Your task to perform on an android device: turn on notifications settings in the gmail app Image 0: 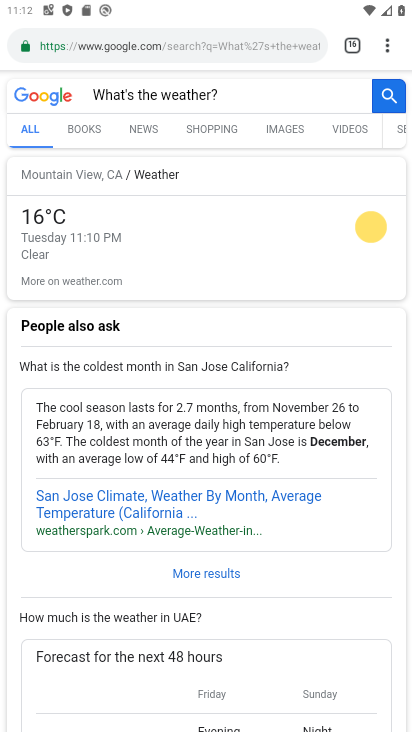
Step 0: press home button
Your task to perform on an android device: turn on notifications settings in the gmail app Image 1: 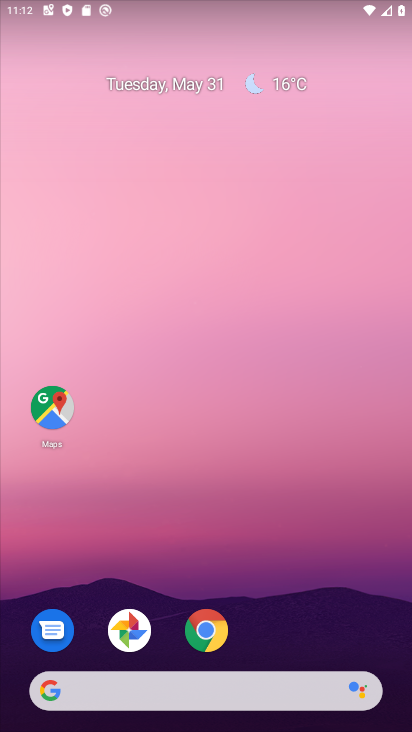
Step 1: drag from (272, 646) to (215, 238)
Your task to perform on an android device: turn on notifications settings in the gmail app Image 2: 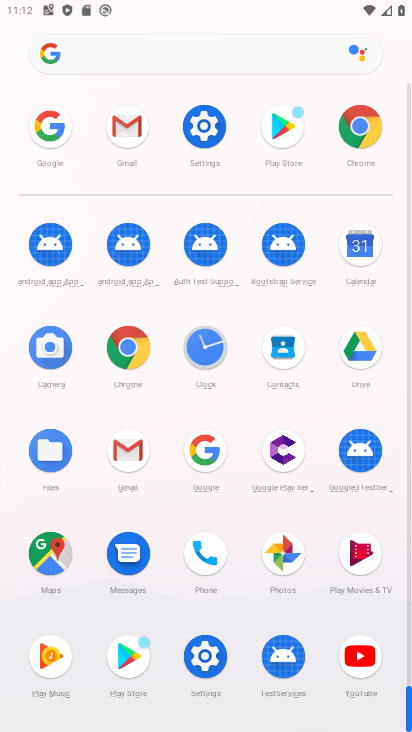
Step 2: click (128, 436)
Your task to perform on an android device: turn on notifications settings in the gmail app Image 3: 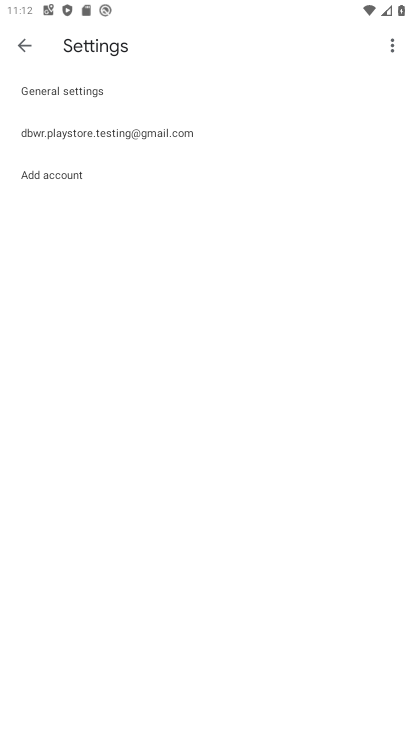
Step 3: click (128, 133)
Your task to perform on an android device: turn on notifications settings in the gmail app Image 4: 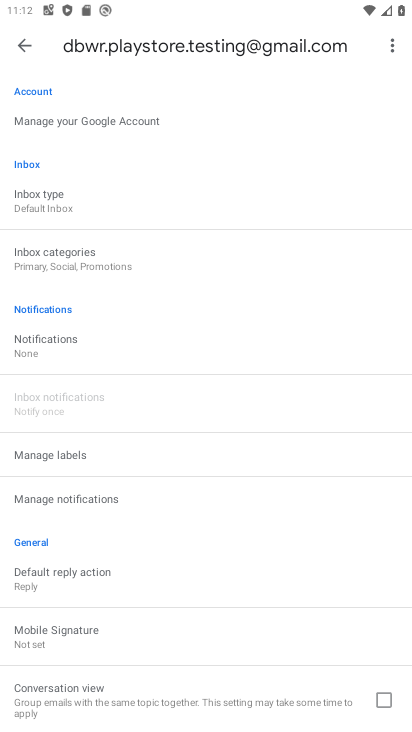
Step 4: click (81, 351)
Your task to perform on an android device: turn on notifications settings in the gmail app Image 5: 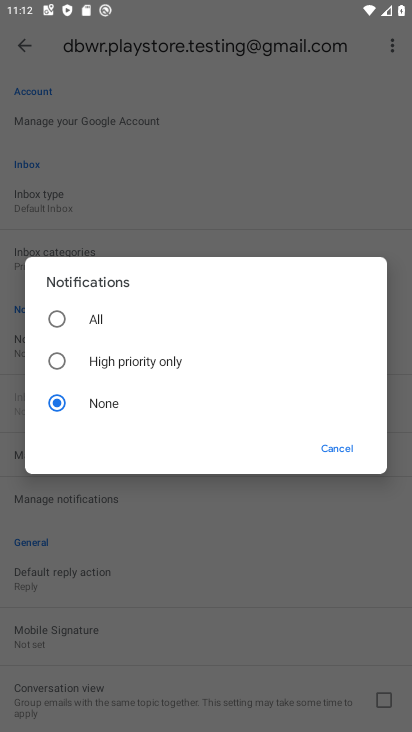
Step 5: click (95, 320)
Your task to perform on an android device: turn on notifications settings in the gmail app Image 6: 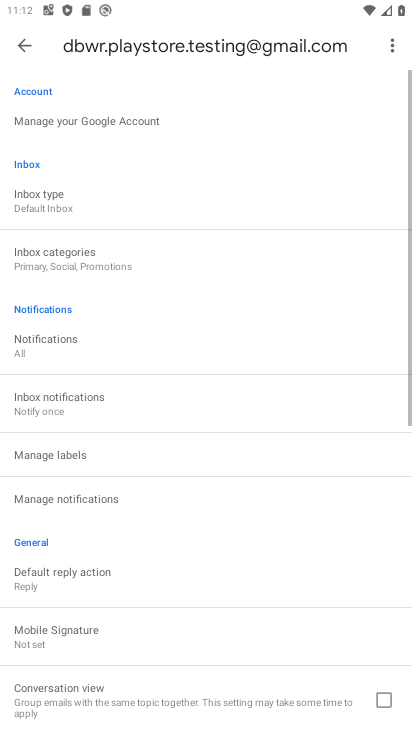
Step 6: task complete